Your task to perform on an android device: Open Youtube and go to "Your channel" Image 0: 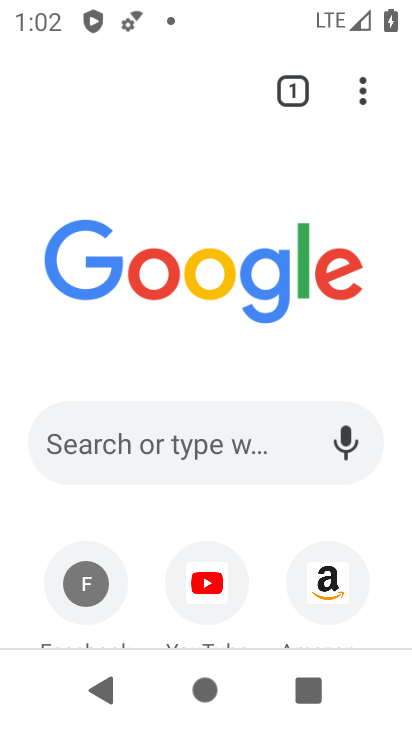
Step 0: press home button
Your task to perform on an android device: Open Youtube and go to "Your channel" Image 1: 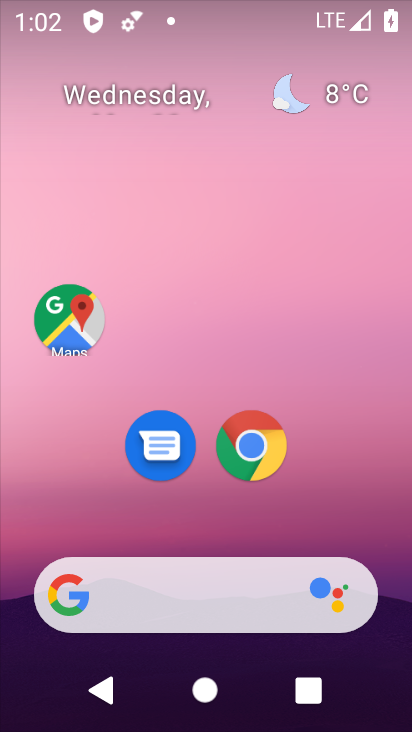
Step 1: drag from (207, 551) to (244, 91)
Your task to perform on an android device: Open Youtube and go to "Your channel" Image 2: 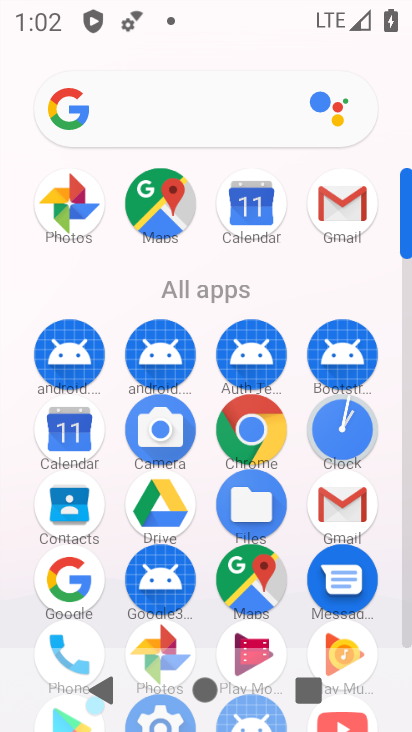
Step 2: drag from (193, 689) to (247, 387)
Your task to perform on an android device: Open Youtube and go to "Your channel" Image 3: 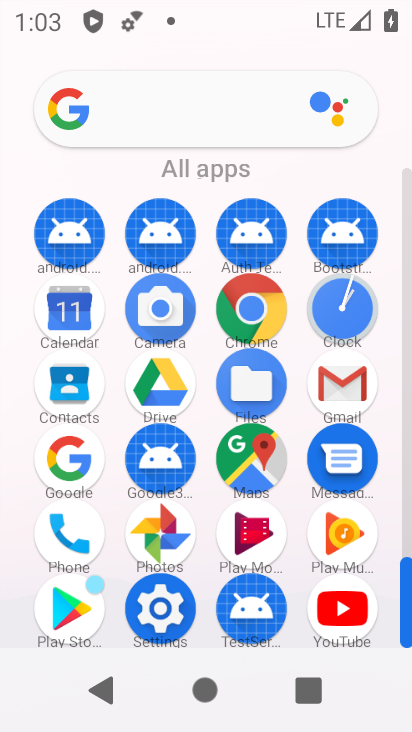
Step 3: click (347, 604)
Your task to perform on an android device: Open Youtube and go to "Your channel" Image 4: 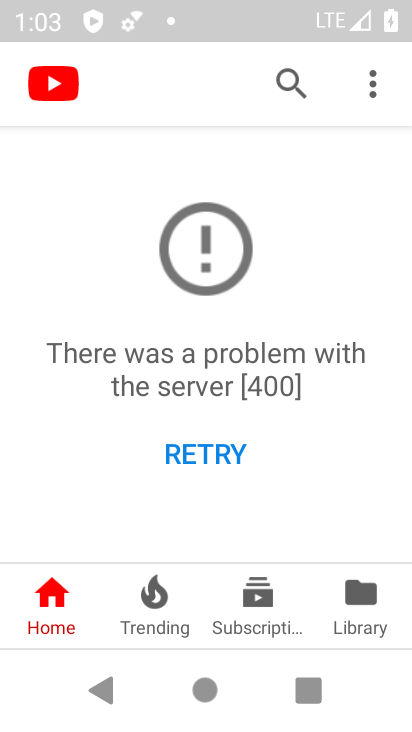
Step 4: click (359, 606)
Your task to perform on an android device: Open Youtube and go to "Your channel" Image 5: 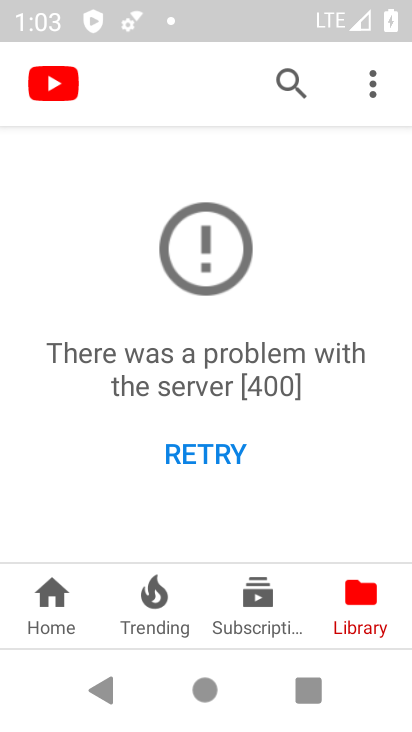
Step 5: task complete